Your task to perform on an android device: change the clock display to analog Image 0: 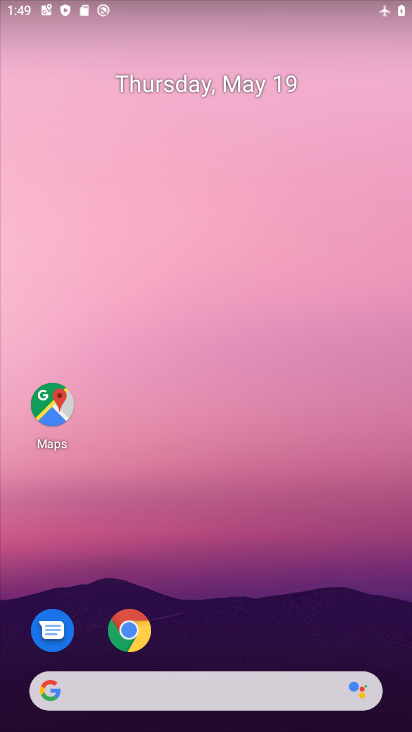
Step 0: drag from (231, 660) to (139, 86)
Your task to perform on an android device: change the clock display to analog Image 1: 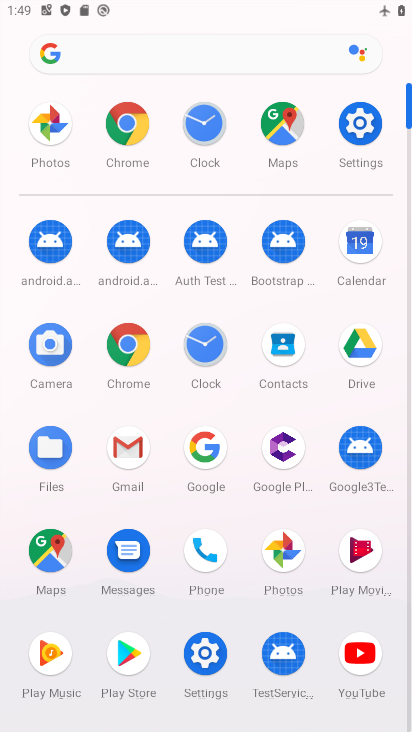
Step 1: click (189, 349)
Your task to perform on an android device: change the clock display to analog Image 2: 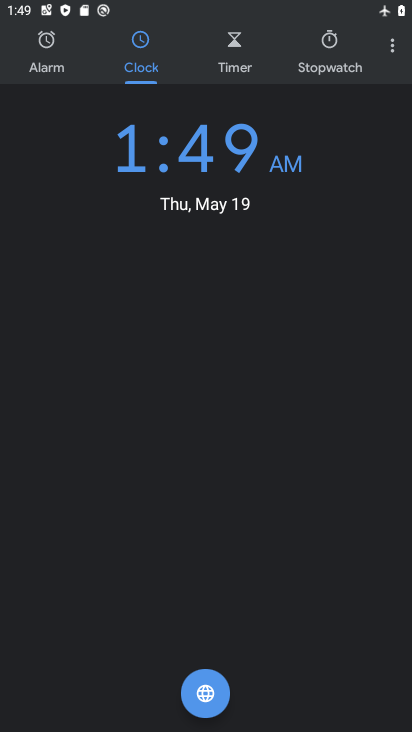
Step 2: click (386, 51)
Your task to perform on an android device: change the clock display to analog Image 3: 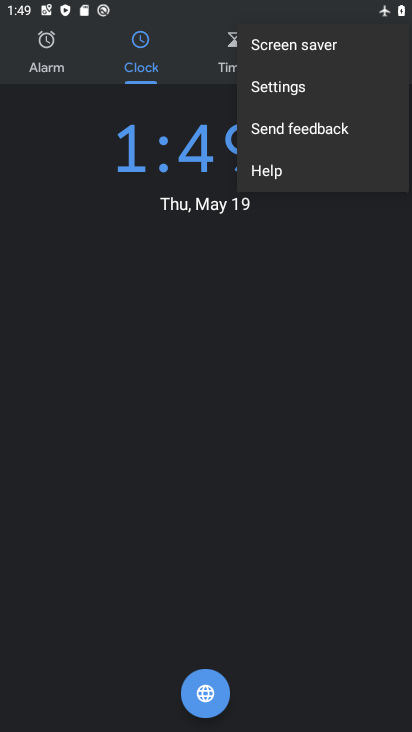
Step 3: click (286, 84)
Your task to perform on an android device: change the clock display to analog Image 4: 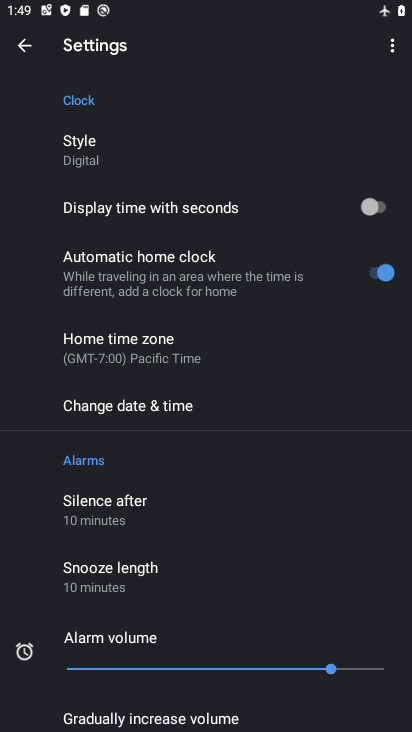
Step 4: drag from (171, 474) to (159, 564)
Your task to perform on an android device: change the clock display to analog Image 5: 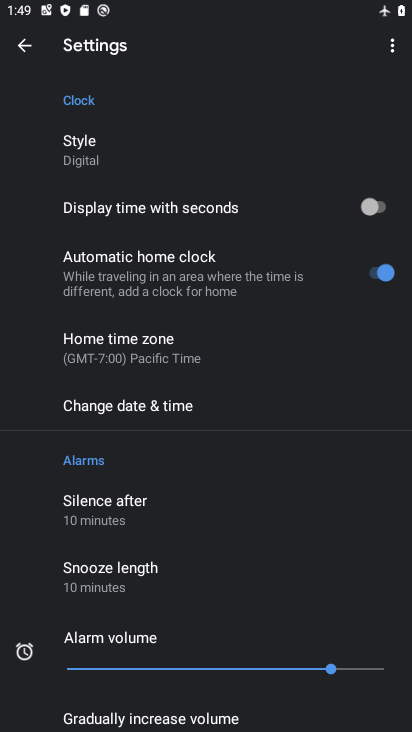
Step 5: click (113, 159)
Your task to perform on an android device: change the clock display to analog Image 6: 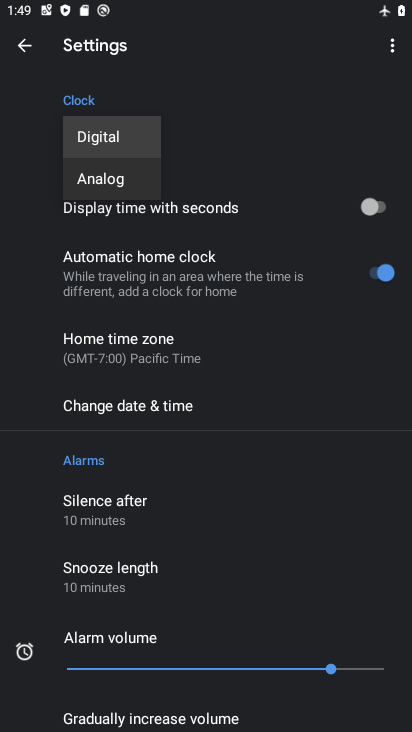
Step 6: click (113, 180)
Your task to perform on an android device: change the clock display to analog Image 7: 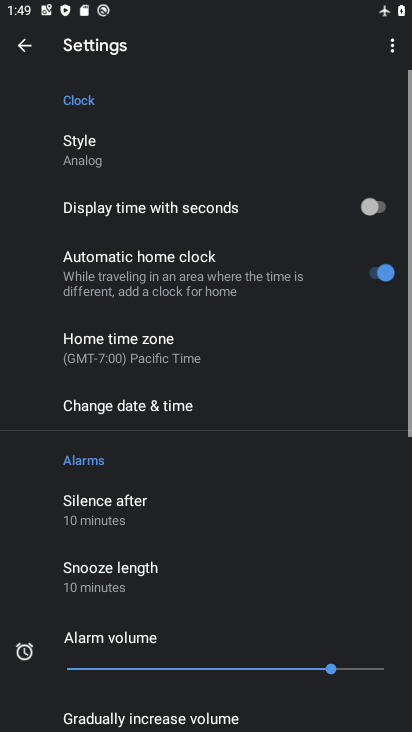
Step 7: task complete